Your task to perform on an android device: allow cookies in the chrome app Image 0: 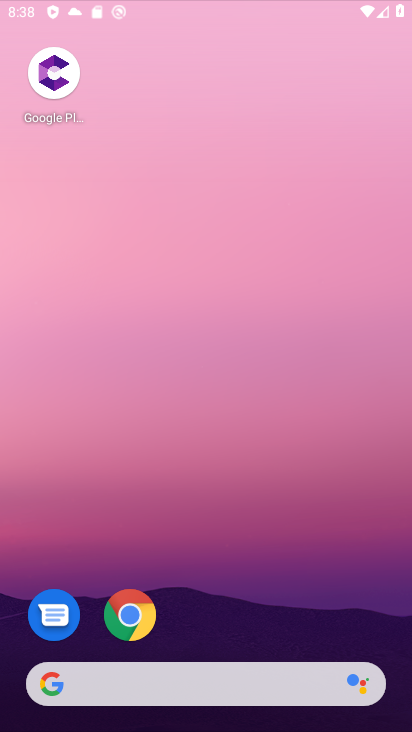
Step 0: click (247, 210)
Your task to perform on an android device: allow cookies in the chrome app Image 1: 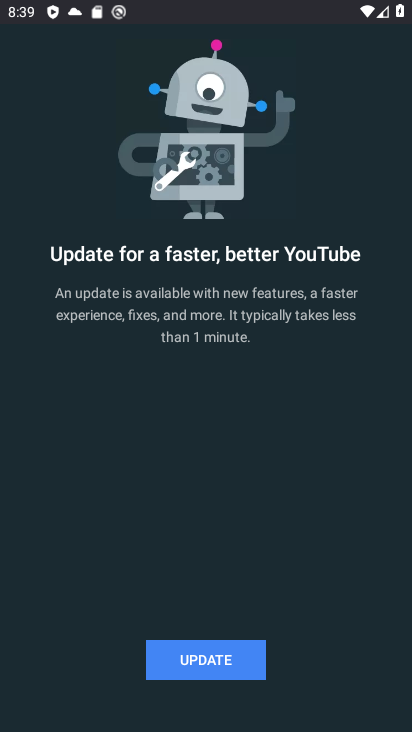
Step 1: task complete